Your task to perform on an android device: Open Google Chrome and open the bookmarks view Image 0: 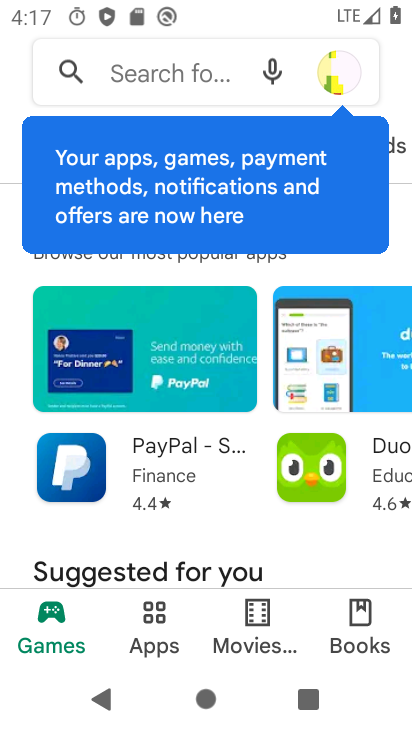
Step 0: press home button
Your task to perform on an android device: Open Google Chrome and open the bookmarks view Image 1: 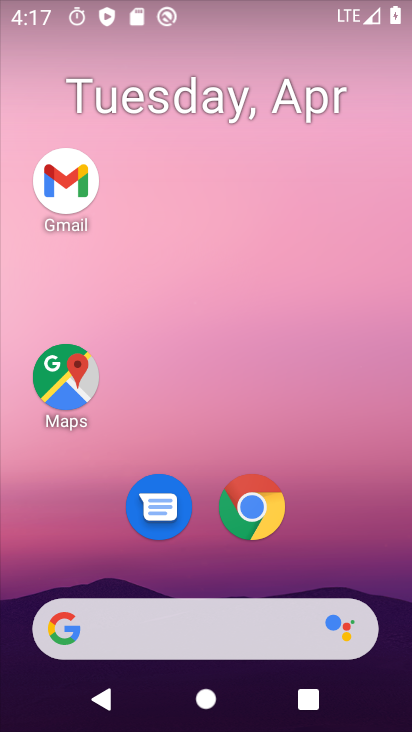
Step 1: click (268, 506)
Your task to perform on an android device: Open Google Chrome and open the bookmarks view Image 2: 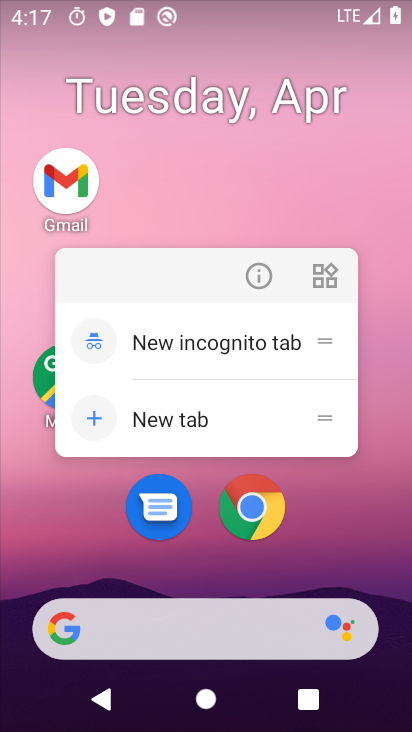
Step 2: click (270, 521)
Your task to perform on an android device: Open Google Chrome and open the bookmarks view Image 3: 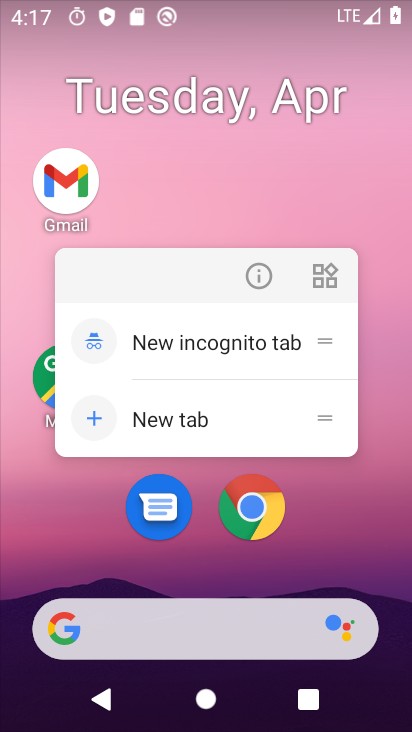
Step 3: click (270, 521)
Your task to perform on an android device: Open Google Chrome and open the bookmarks view Image 4: 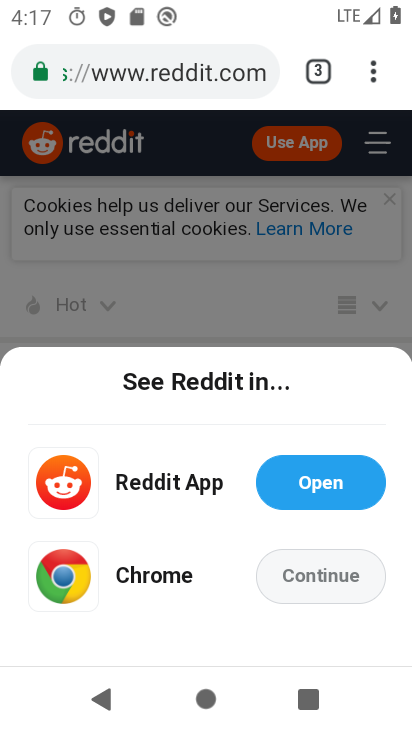
Step 4: click (374, 71)
Your task to perform on an android device: Open Google Chrome and open the bookmarks view Image 5: 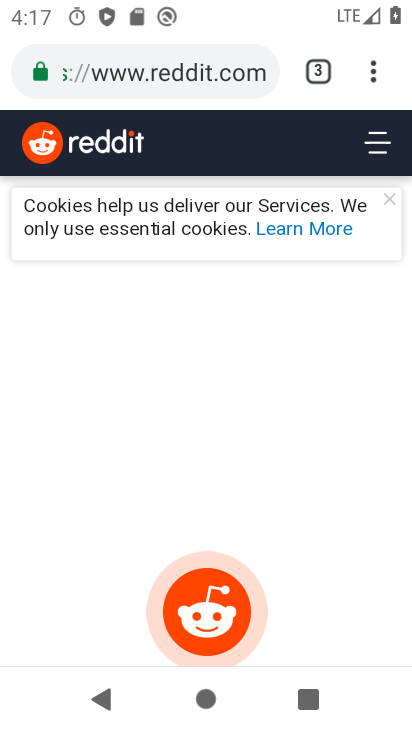
Step 5: click (381, 74)
Your task to perform on an android device: Open Google Chrome and open the bookmarks view Image 6: 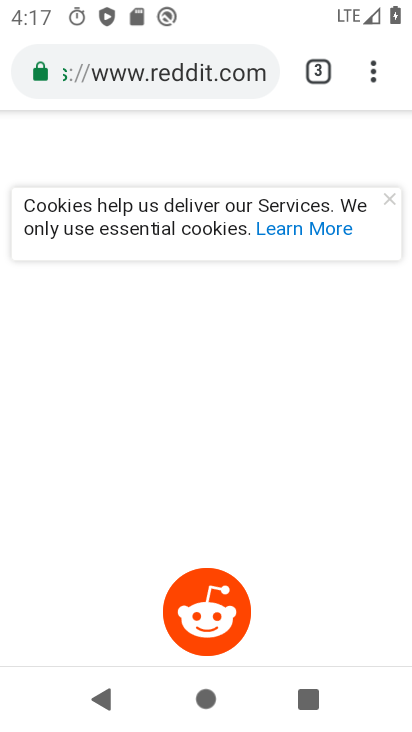
Step 6: click (369, 63)
Your task to perform on an android device: Open Google Chrome and open the bookmarks view Image 7: 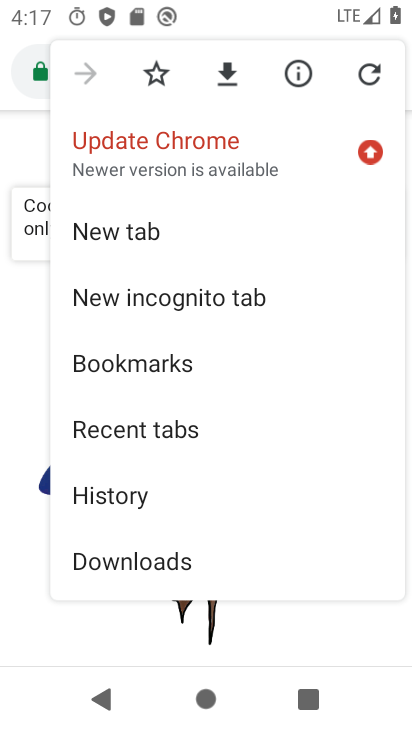
Step 7: click (169, 366)
Your task to perform on an android device: Open Google Chrome and open the bookmarks view Image 8: 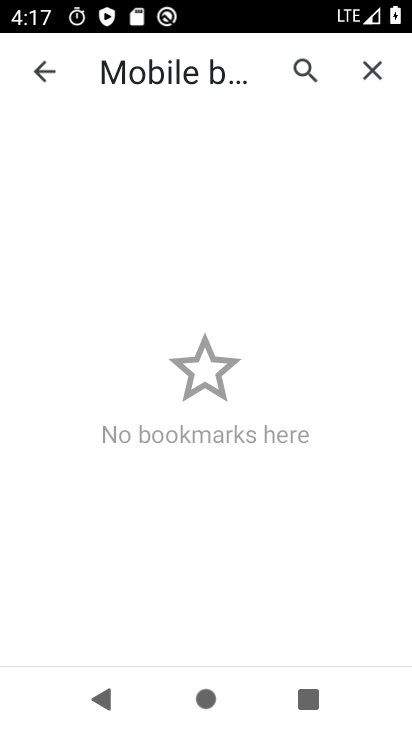
Step 8: task complete